Your task to perform on an android device: Go to Maps Image 0: 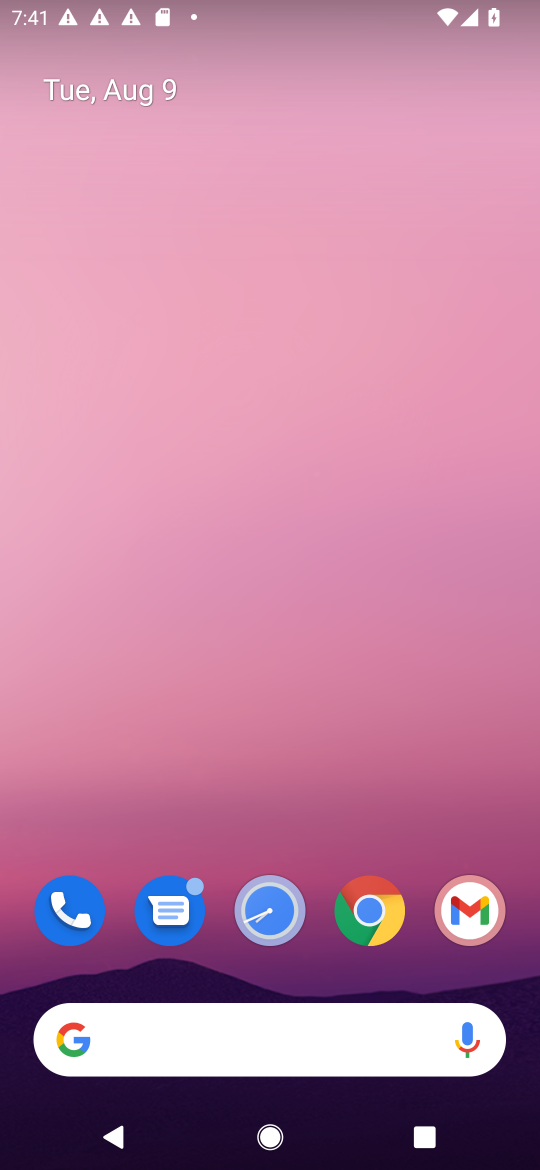
Step 0: drag from (427, 851) to (514, 199)
Your task to perform on an android device: Go to Maps Image 1: 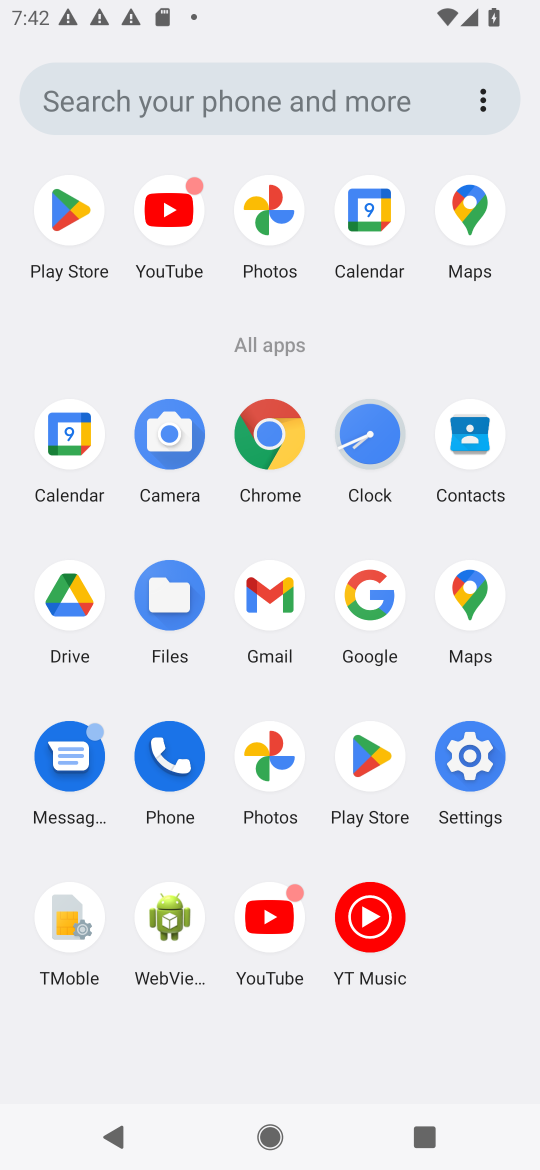
Step 1: click (469, 619)
Your task to perform on an android device: Go to Maps Image 2: 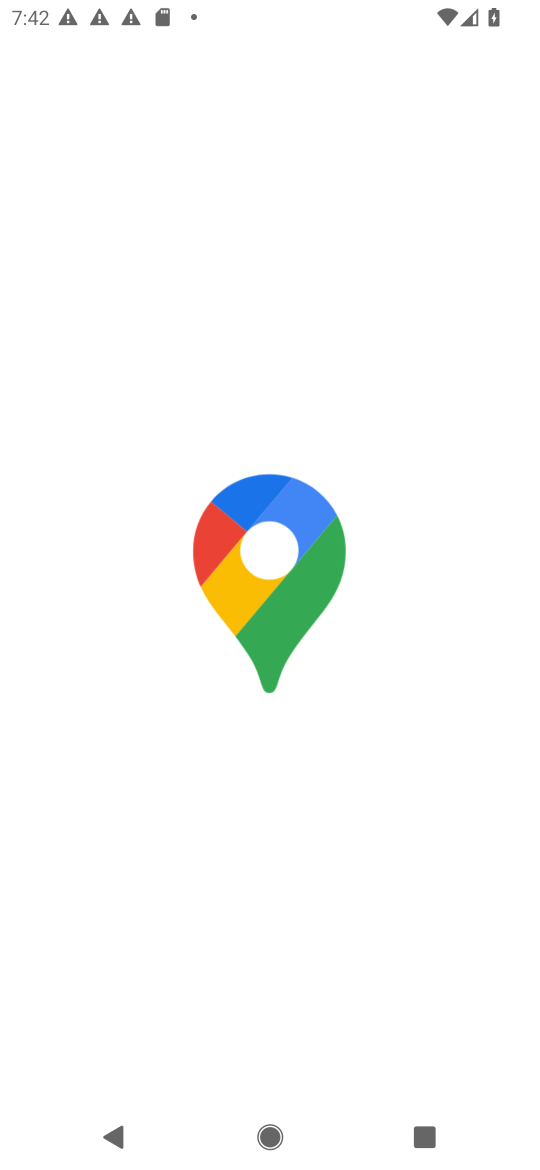
Step 2: task complete